Your task to perform on an android device: turn on the 24-hour format for clock Image 0: 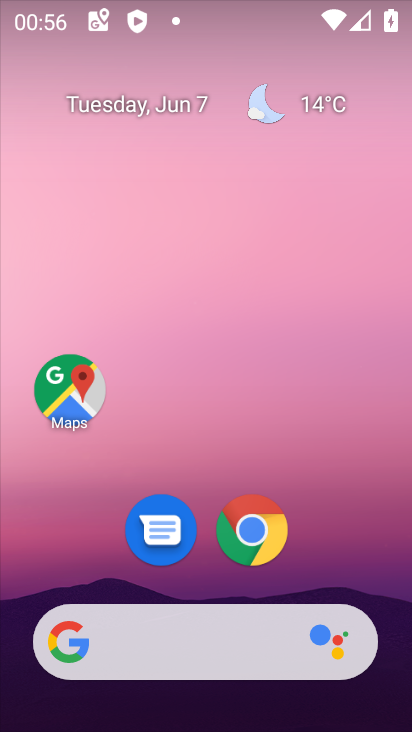
Step 0: drag from (333, 457) to (282, 162)
Your task to perform on an android device: turn on the 24-hour format for clock Image 1: 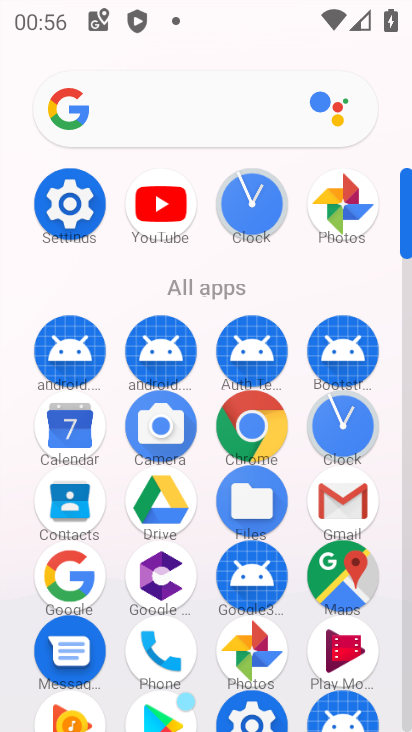
Step 1: click (347, 415)
Your task to perform on an android device: turn on the 24-hour format for clock Image 2: 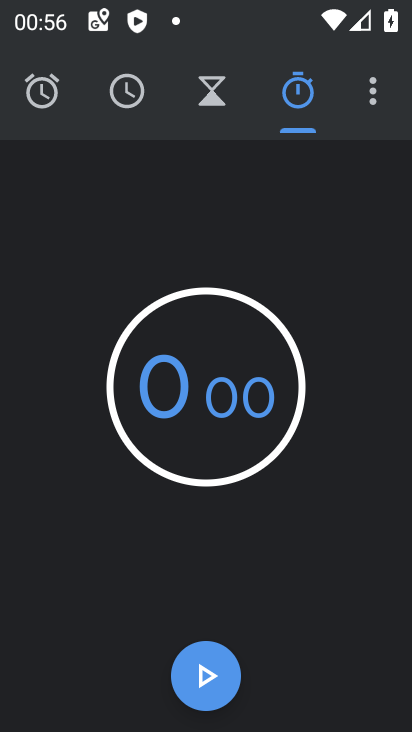
Step 2: click (372, 96)
Your task to perform on an android device: turn on the 24-hour format for clock Image 3: 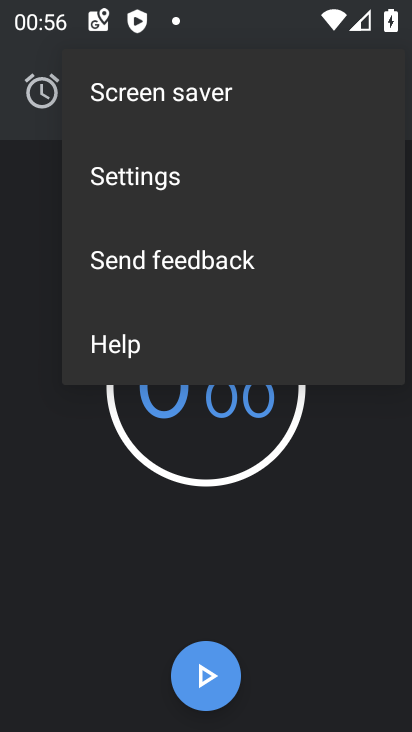
Step 3: click (157, 173)
Your task to perform on an android device: turn on the 24-hour format for clock Image 4: 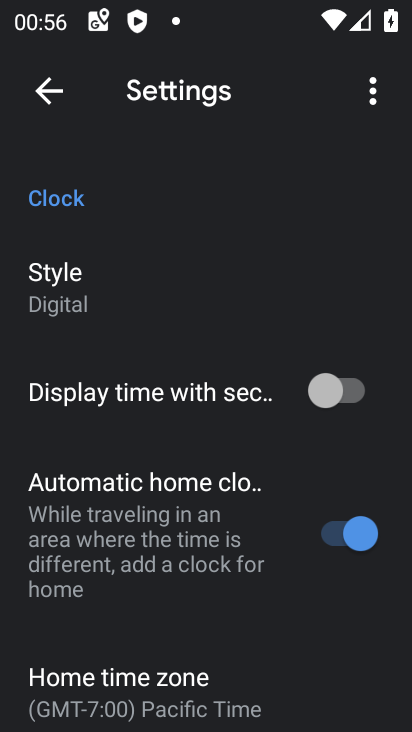
Step 4: drag from (203, 539) to (239, 245)
Your task to perform on an android device: turn on the 24-hour format for clock Image 5: 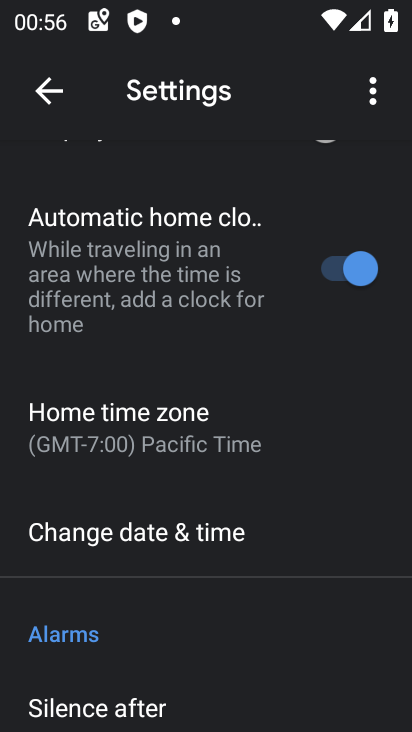
Step 5: click (186, 539)
Your task to perform on an android device: turn on the 24-hour format for clock Image 6: 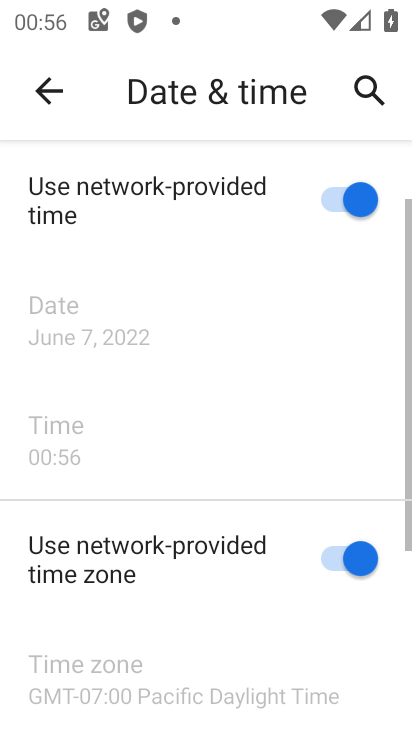
Step 6: task complete